Your task to perform on an android device: Open Android settings Image 0: 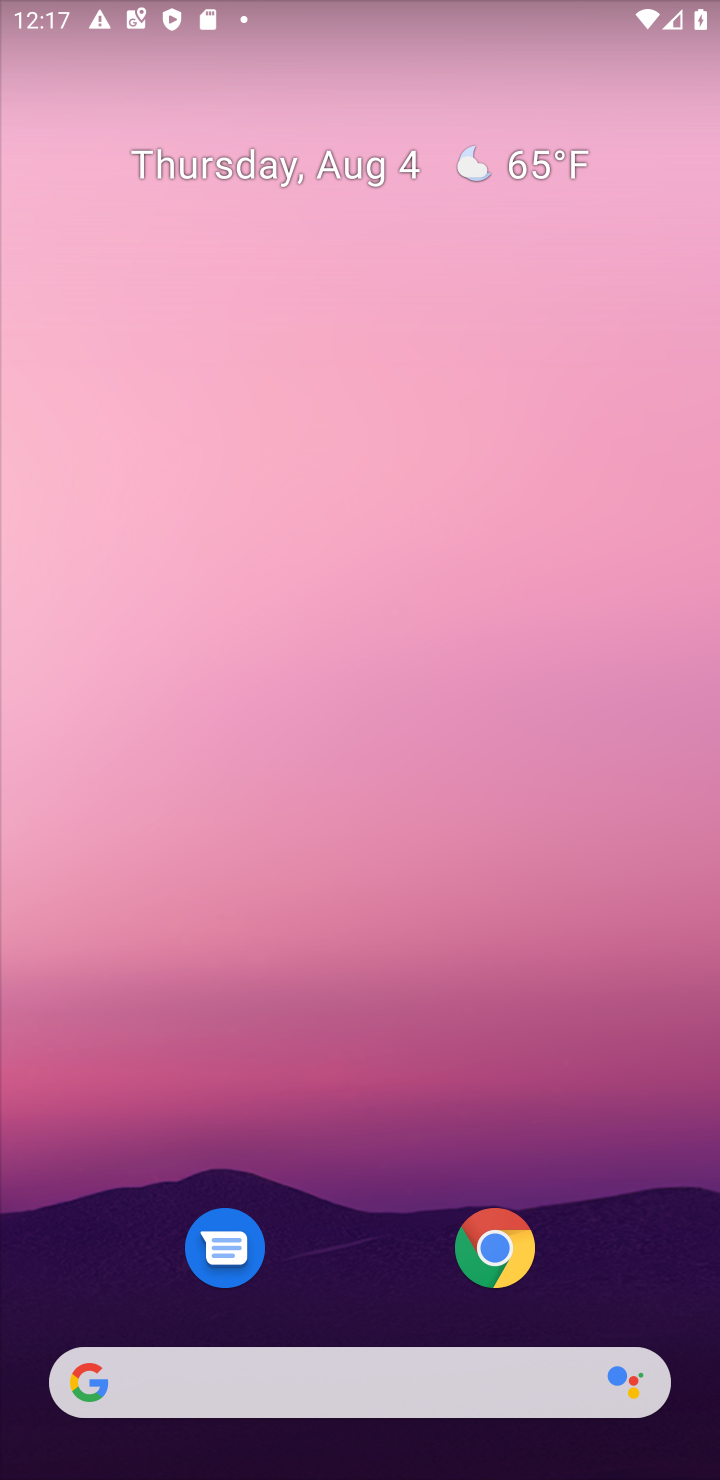
Step 0: drag from (350, 1285) to (389, 229)
Your task to perform on an android device: Open Android settings Image 1: 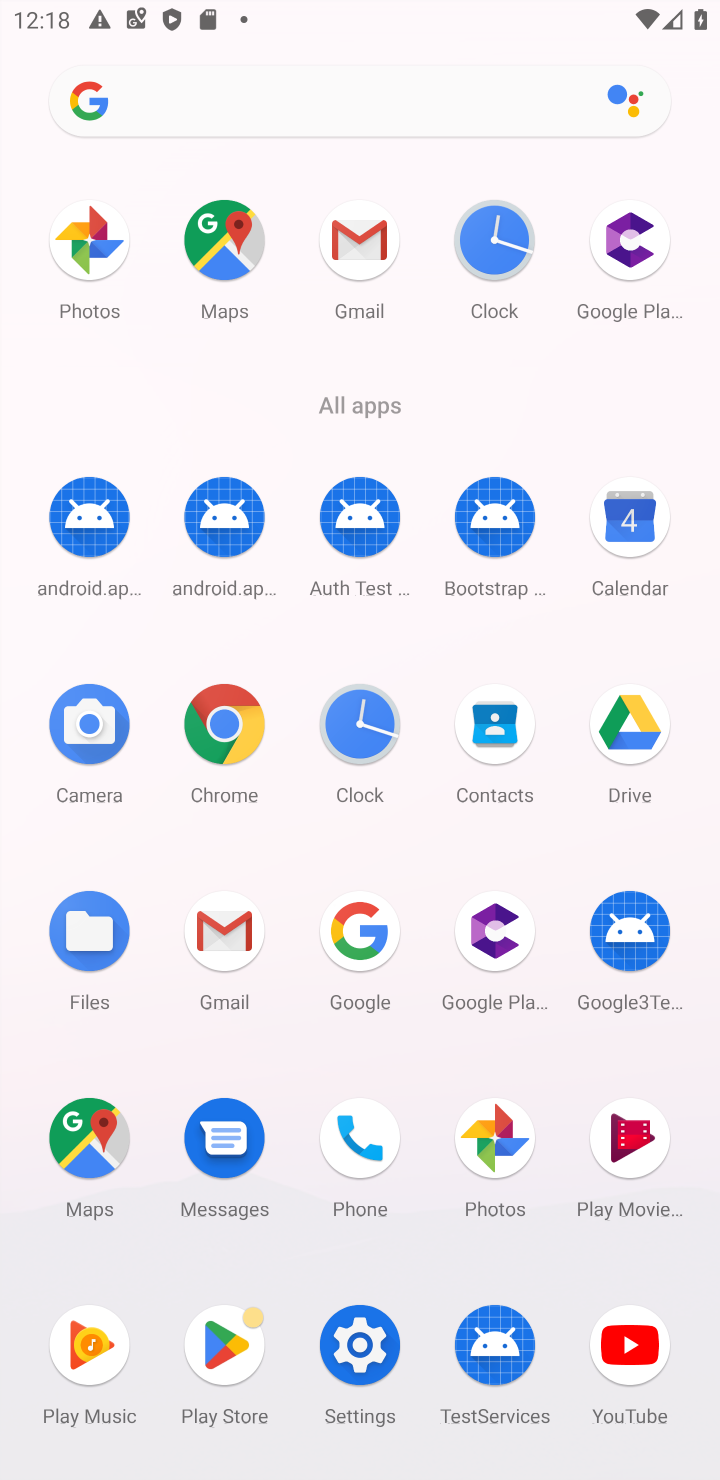
Step 1: click (358, 1341)
Your task to perform on an android device: Open Android settings Image 2: 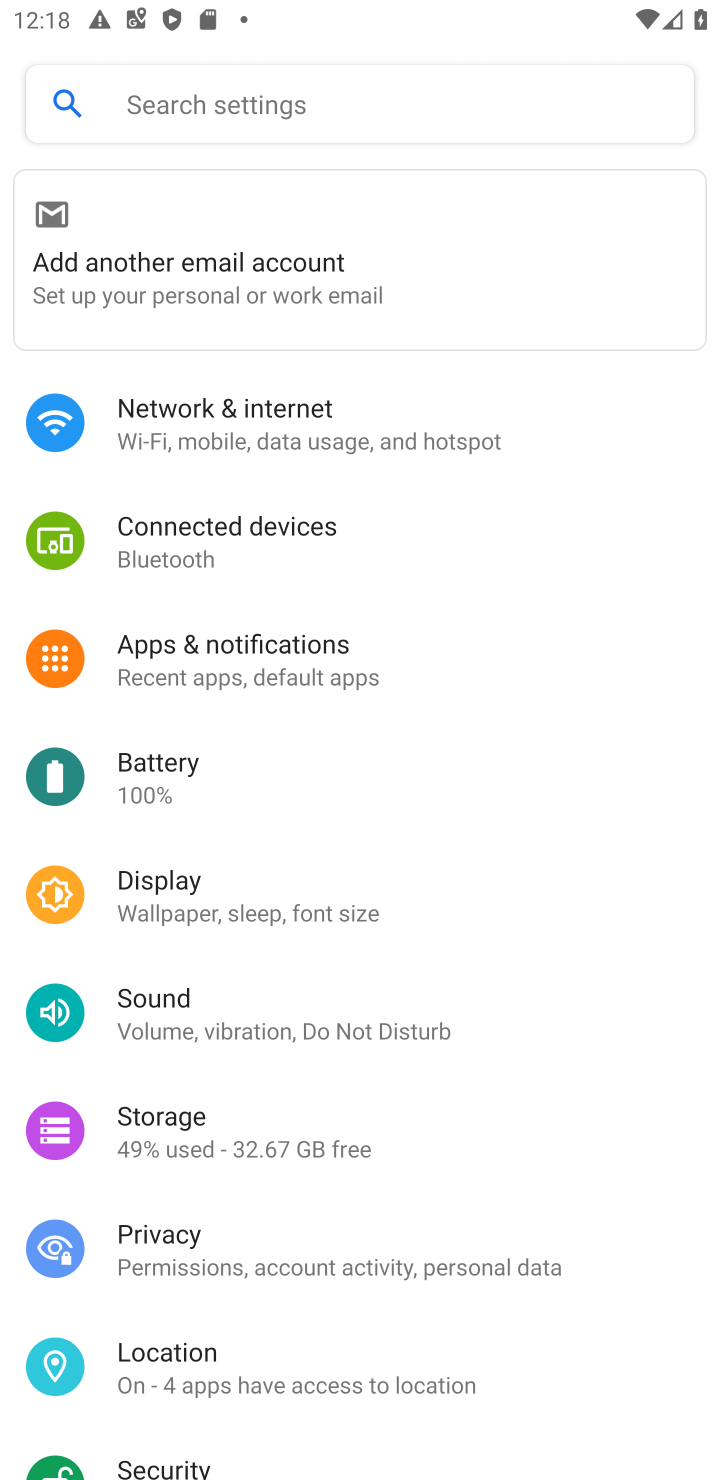
Step 2: drag from (281, 1222) to (329, 176)
Your task to perform on an android device: Open Android settings Image 3: 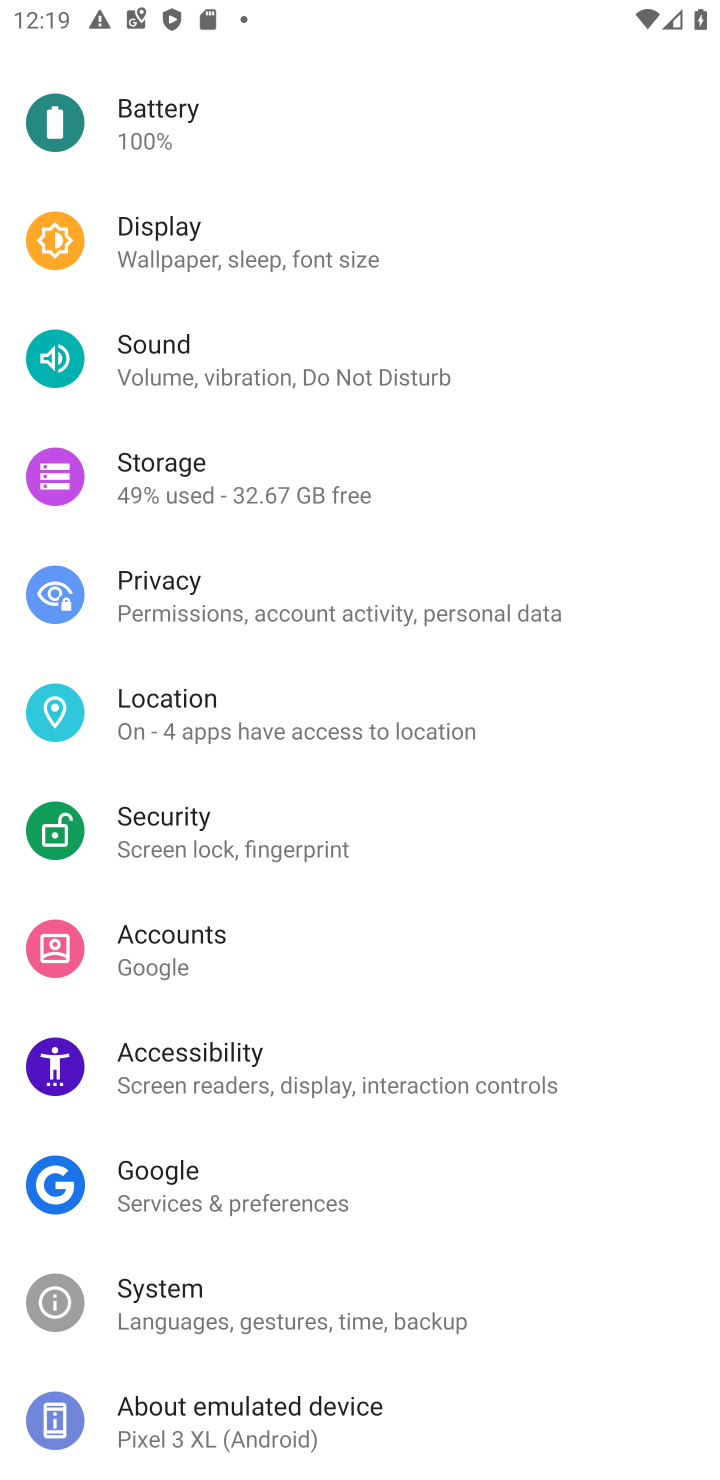
Step 3: click (251, 1429)
Your task to perform on an android device: Open Android settings Image 4: 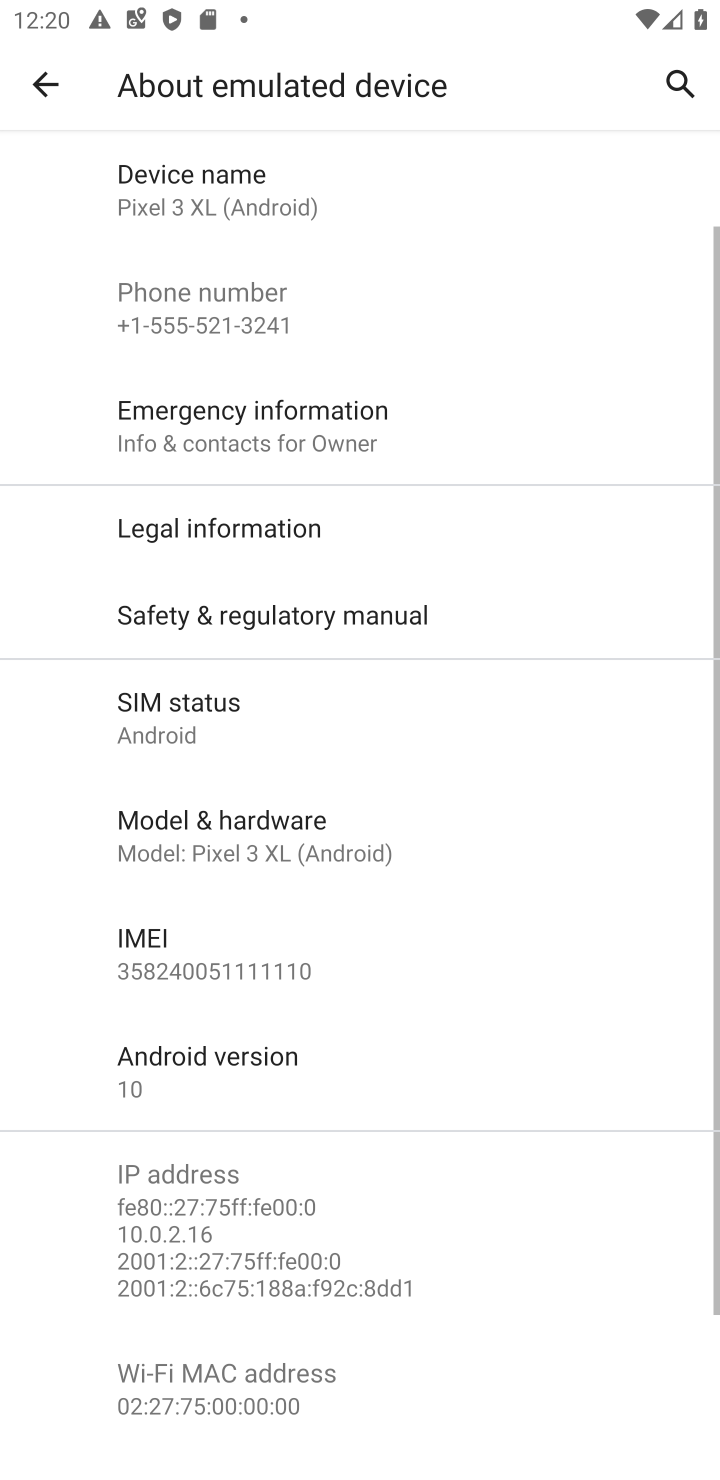
Step 4: task complete